Your task to perform on an android device: all mails in gmail Image 0: 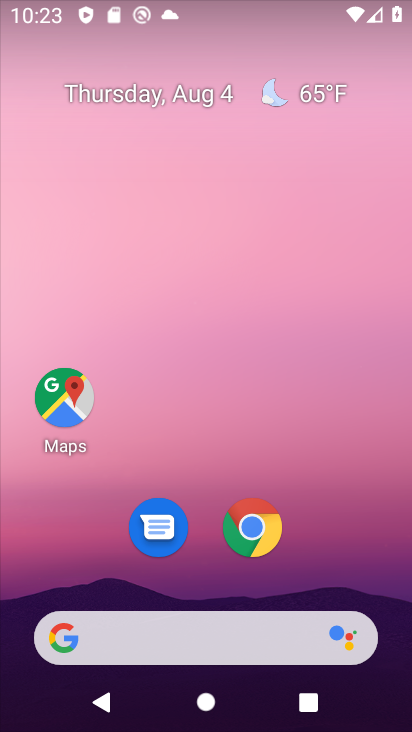
Step 0: drag from (136, 706) to (228, 124)
Your task to perform on an android device: all mails in gmail Image 1: 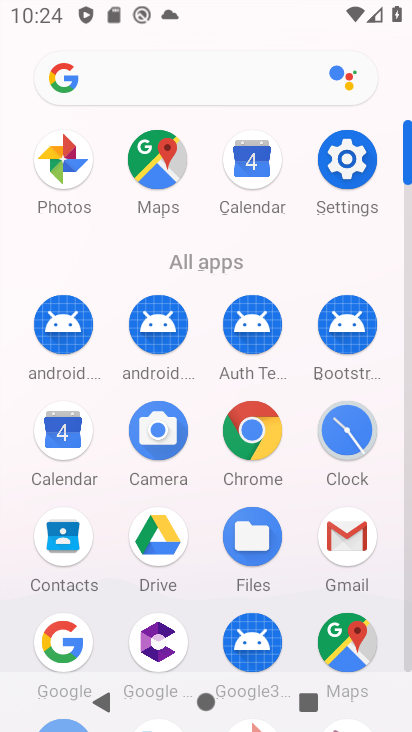
Step 1: click (323, 532)
Your task to perform on an android device: all mails in gmail Image 2: 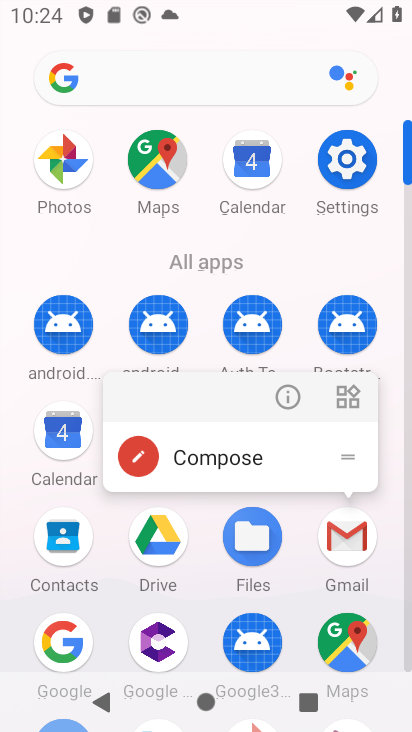
Step 2: click (323, 532)
Your task to perform on an android device: all mails in gmail Image 3: 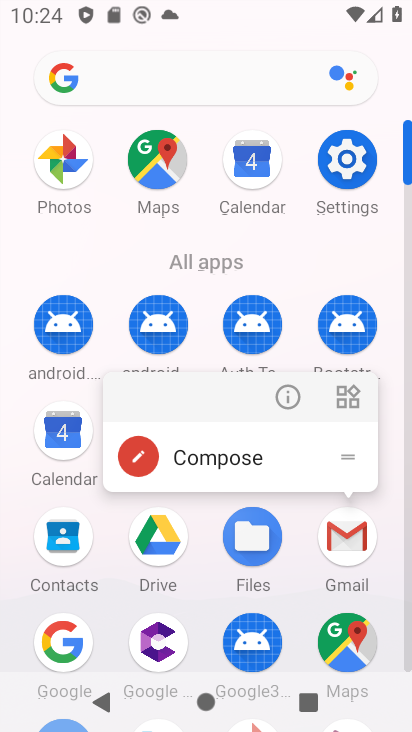
Step 3: click (323, 532)
Your task to perform on an android device: all mails in gmail Image 4: 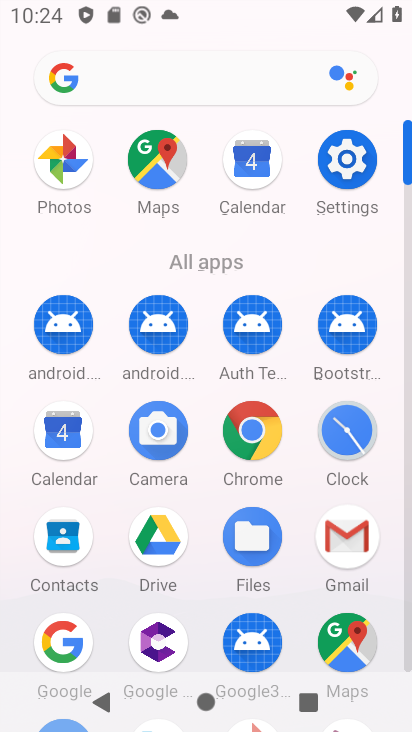
Step 4: click (323, 532)
Your task to perform on an android device: all mails in gmail Image 5: 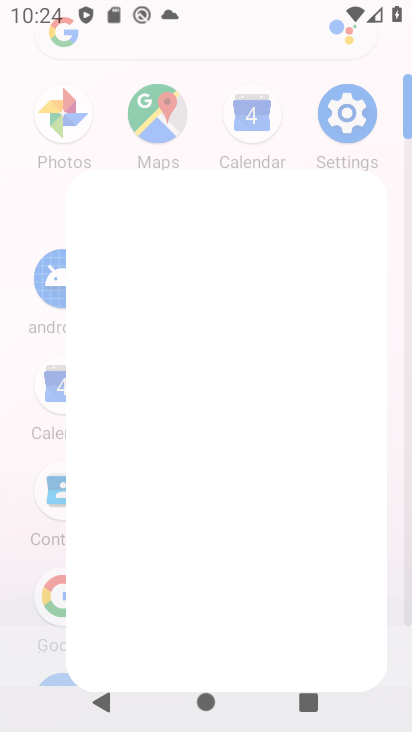
Step 5: click (323, 532)
Your task to perform on an android device: all mails in gmail Image 6: 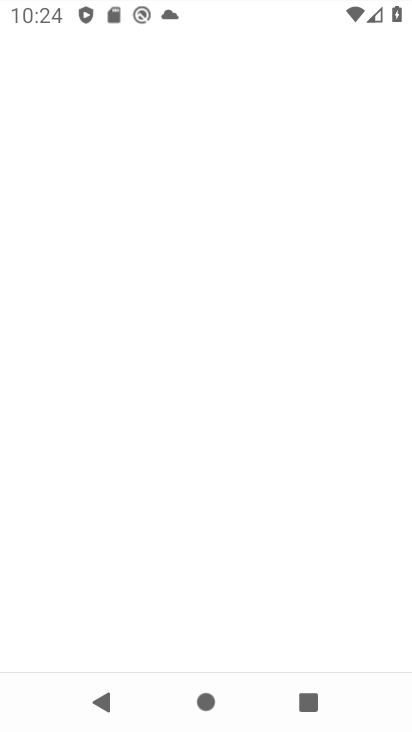
Step 6: click (323, 532)
Your task to perform on an android device: all mails in gmail Image 7: 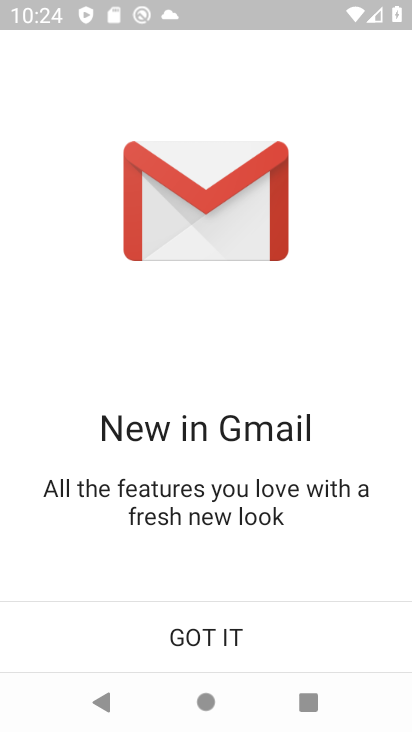
Step 7: click (305, 634)
Your task to perform on an android device: all mails in gmail Image 8: 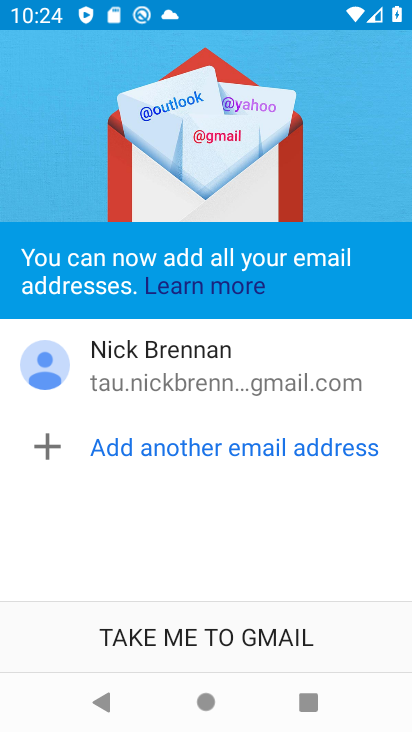
Step 8: click (305, 634)
Your task to perform on an android device: all mails in gmail Image 9: 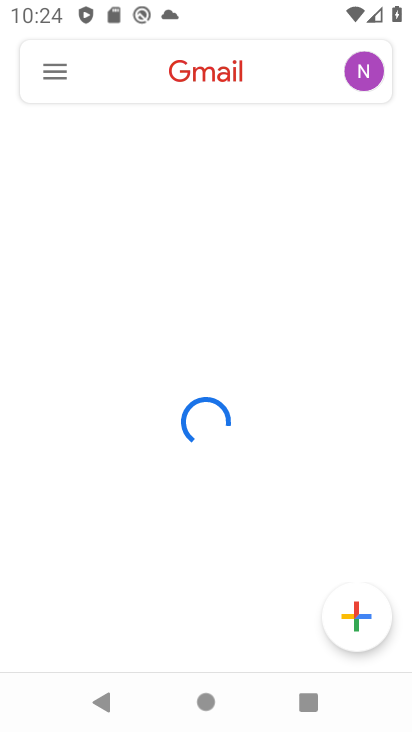
Step 9: click (46, 68)
Your task to perform on an android device: all mails in gmail Image 10: 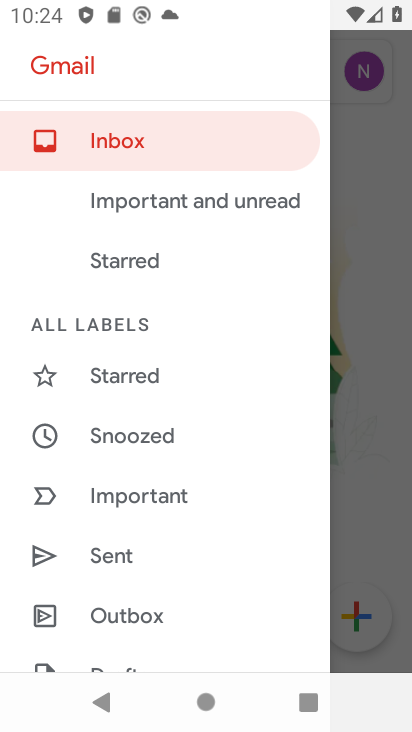
Step 10: drag from (171, 611) to (357, 18)
Your task to perform on an android device: all mails in gmail Image 11: 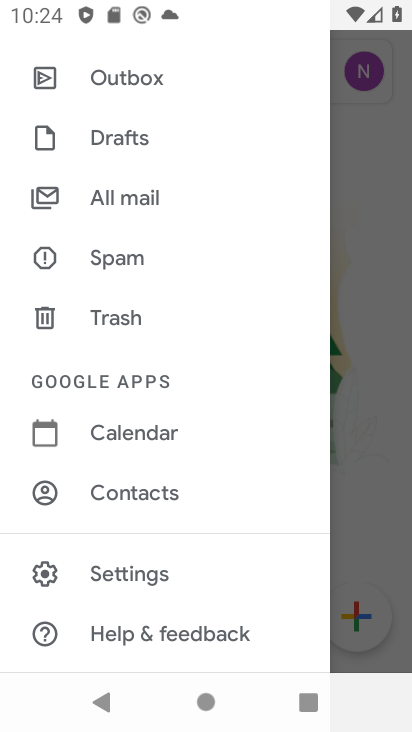
Step 11: click (173, 197)
Your task to perform on an android device: all mails in gmail Image 12: 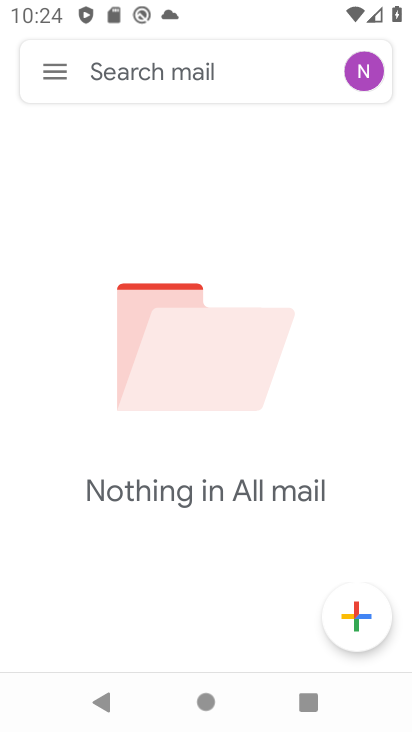
Step 12: task complete